Your task to perform on an android device: Clear all items from cart on walmart. Search for "apple airpods" on walmart, select the first entry, add it to the cart, then select checkout. Image 0: 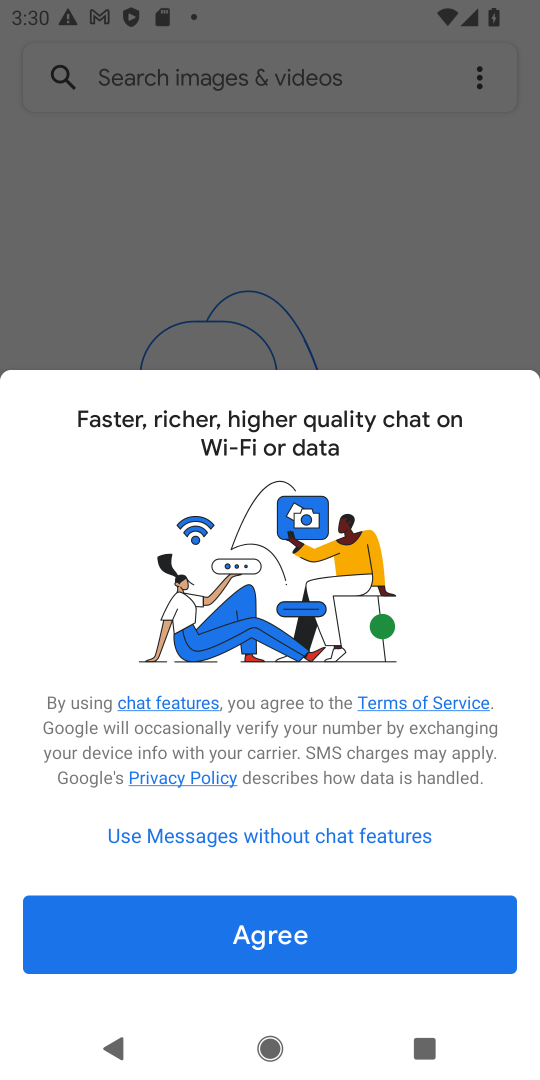
Step 0: press home button
Your task to perform on an android device: Clear all items from cart on walmart. Search for "apple airpods" on walmart, select the first entry, add it to the cart, then select checkout. Image 1: 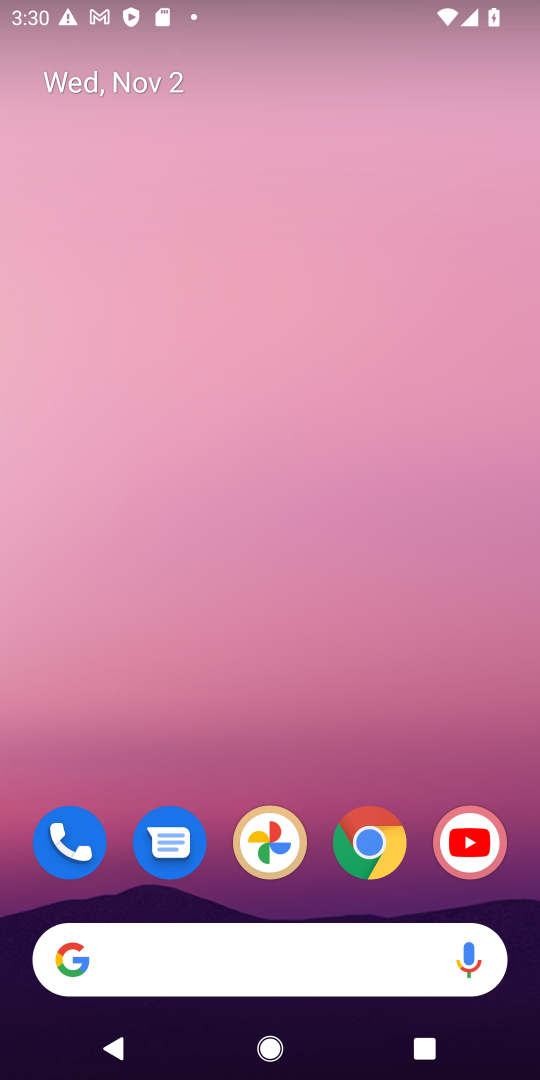
Step 1: click (357, 863)
Your task to perform on an android device: Clear all items from cart on walmart. Search for "apple airpods" on walmart, select the first entry, add it to the cart, then select checkout. Image 2: 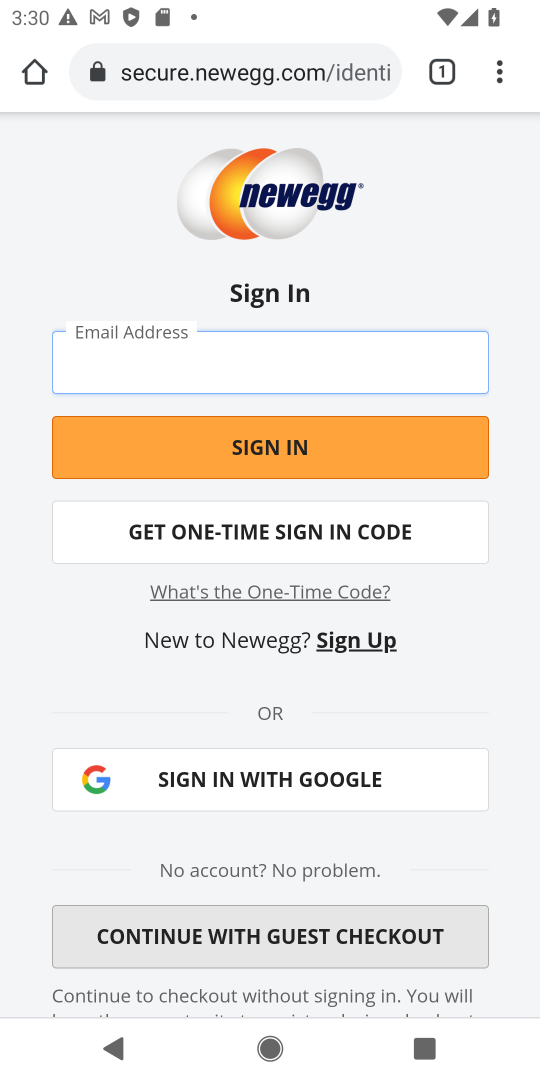
Step 2: click (194, 58)
Your task to perform on an android device: Clear all items from cart on walmart. Search for "apple airpods" on walmart, select the first entry, add it to the cart, then select checkout. Image 3: 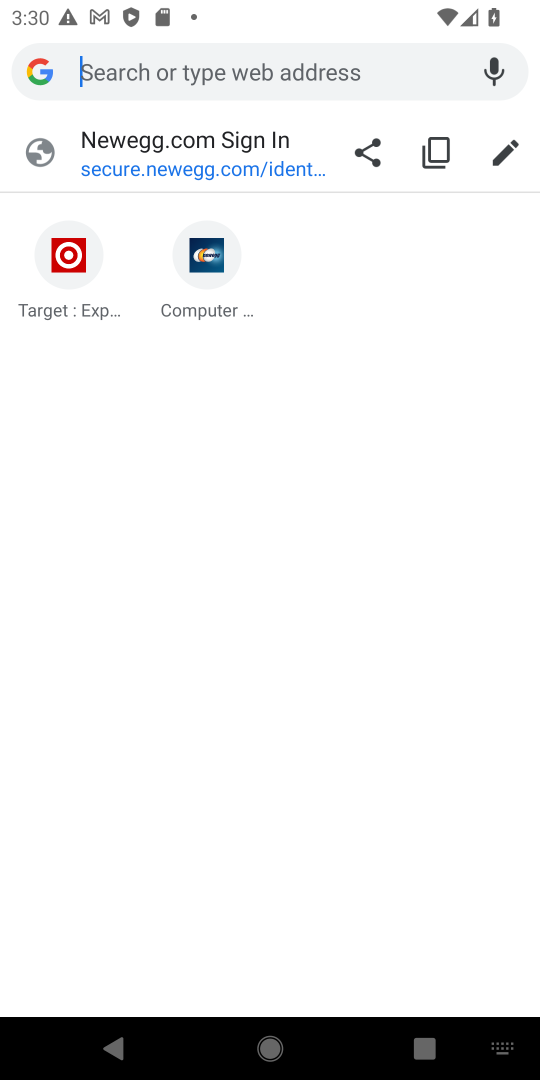
Step 3: type "walmart"
Your task to perform on an android device: Clear all items from cart on walmart. Search for "apple airpods" on walmart, select the first entry, add it to the cart, then select checkout. Image 4: 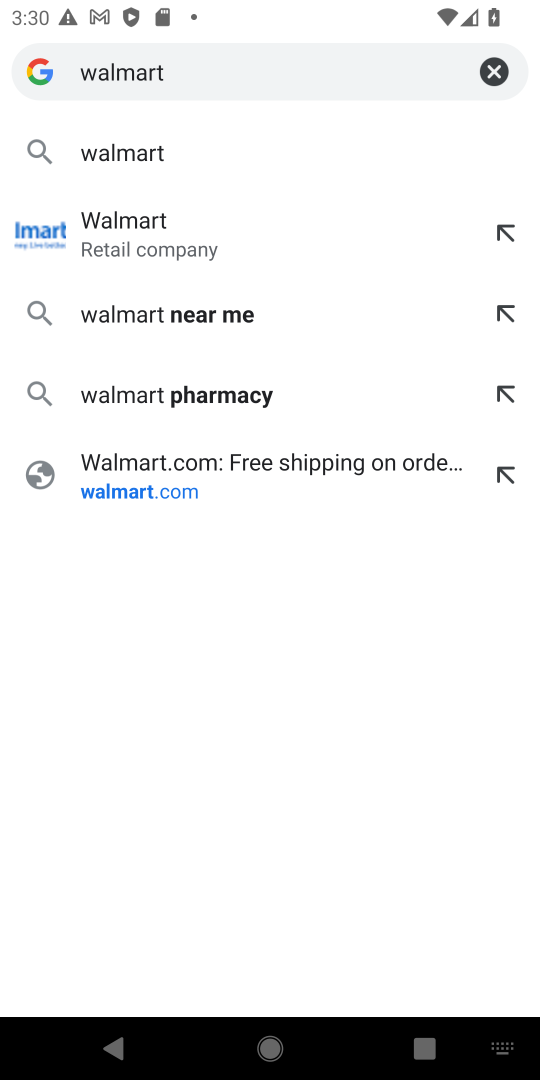
Step 4: click (109, 164)
Your task to perform on an android device: Clear all items from cart on walmart. Search for "apple airpods" on walmart, select the first entry, add it to the cart, then select checkout. Image 5: 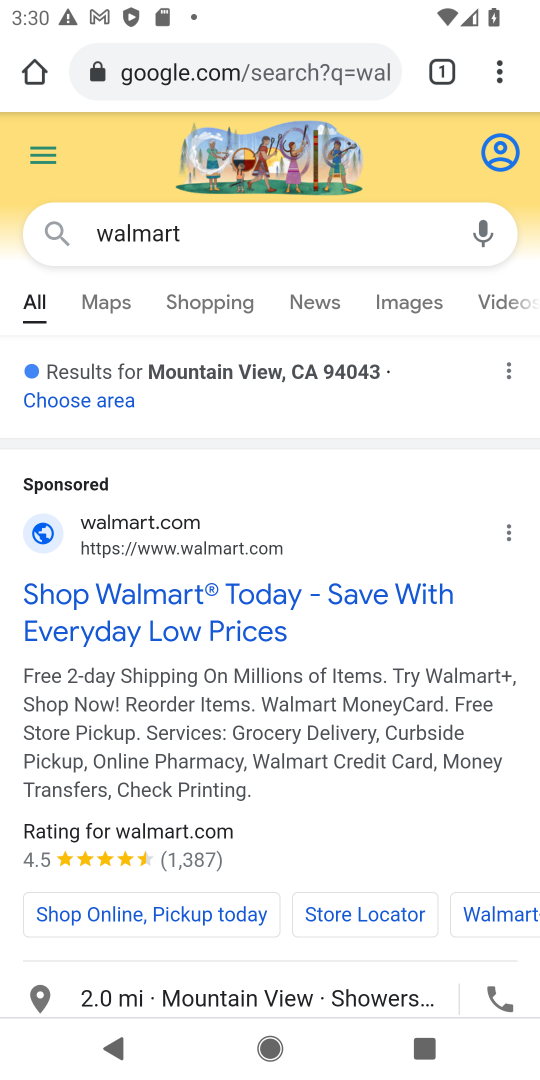
Step 5: drag from (345, 822) to (276, 403)
Your task to perform on an android device: Clear all items from cart on walmart. Search for "apple airpods" on walmart, select the first entry, add it to the cart, then select checkout. Image 6: 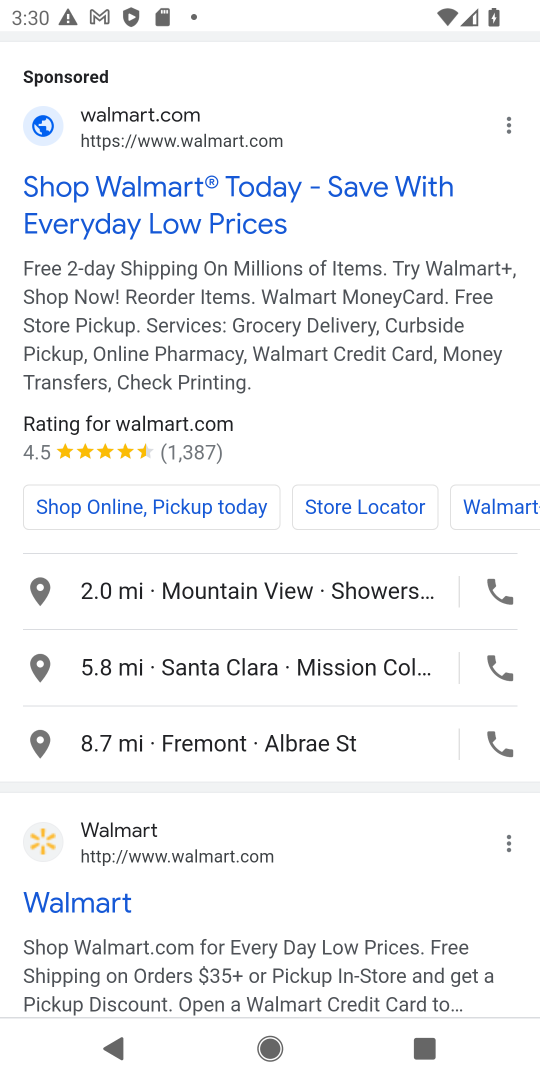
Step 6: click (52, 895)
Your task to perform on an android device: Clear all items from cart on walmart. Search for "apple airpods" on walmart, select the first entry, add it to the cart, then select checkout. Image 7: 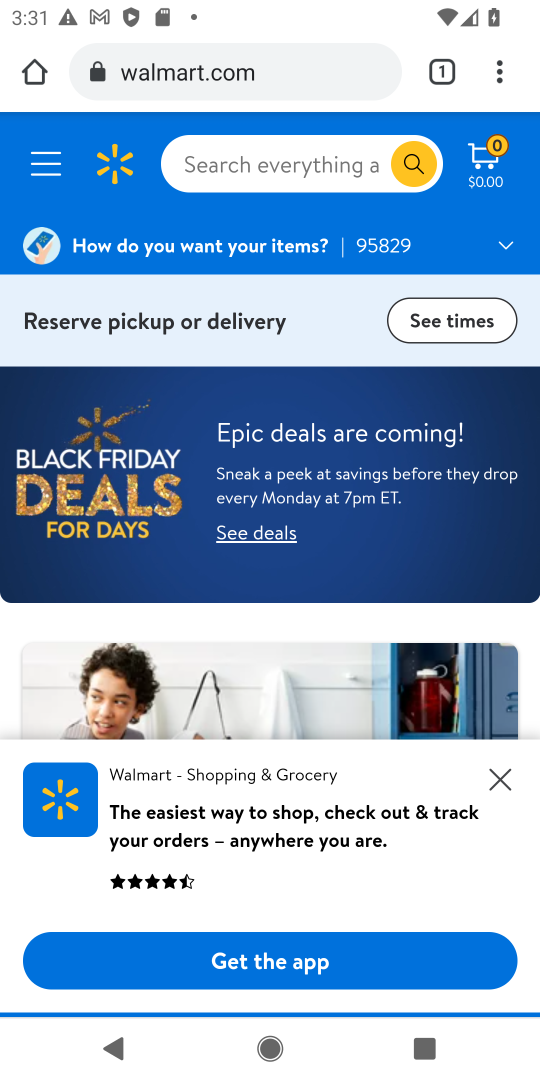
Step 7: click (328, 164)
Your task to perform on an android device: Clear all items from cart on walmart. Search for "apple airpods" on walmart, select the first entry, add it to the cart, then select checkout. Image 8: 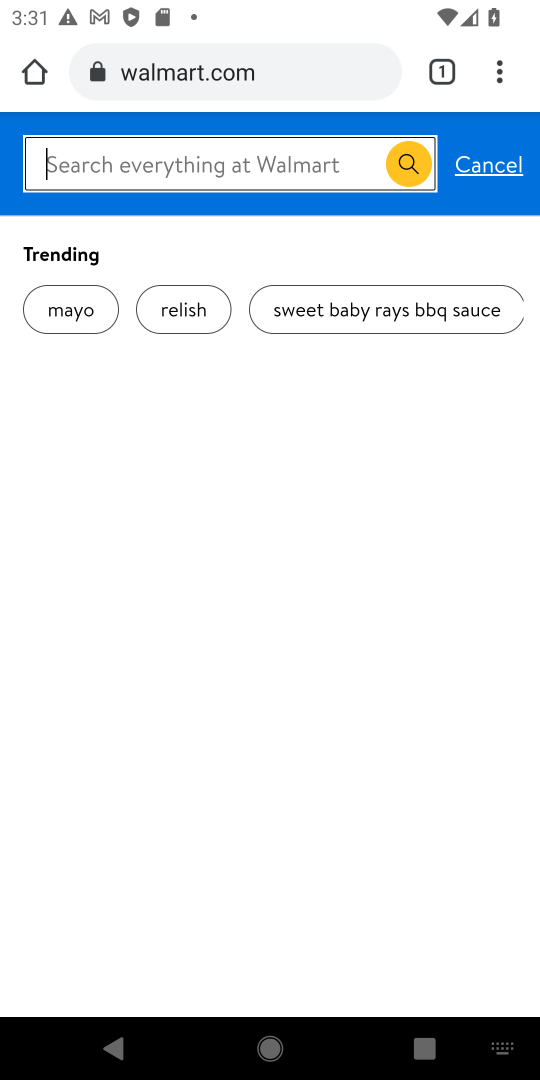
Step 8: type "apple airpods"
Your task to perform on an android device: Clear all items from cart on walmart. Search for "apple airpods" on walmart, select the first entry, add it to the cart, then select checkout. Image 9: 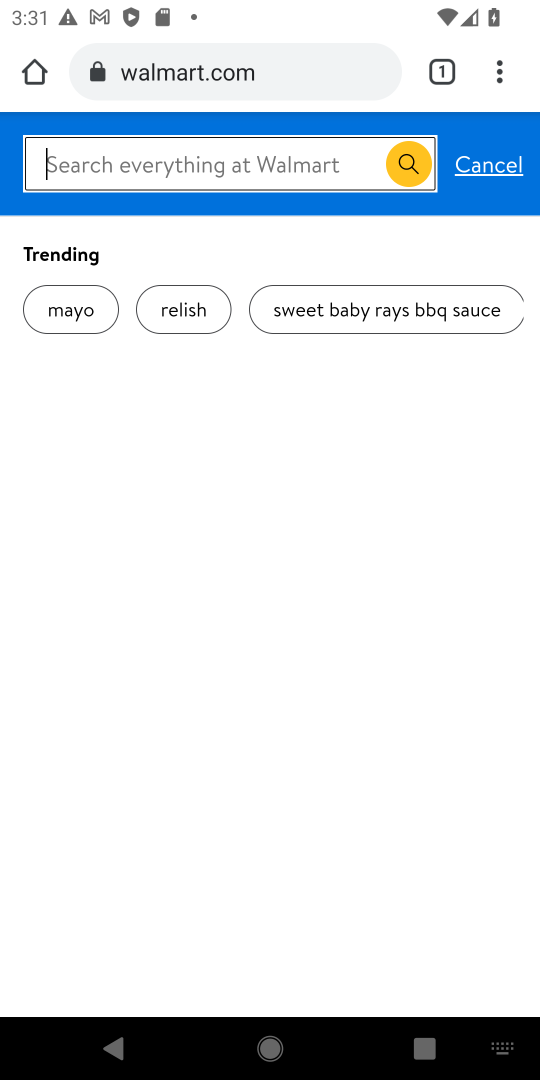
Step 9: click (493, 173)
Your task to perform on an android device: Clear all items from cart on walmart. Search for "apple airpods" on walmart, select the first entry, add it to the cart, then select checkout. Image 10: 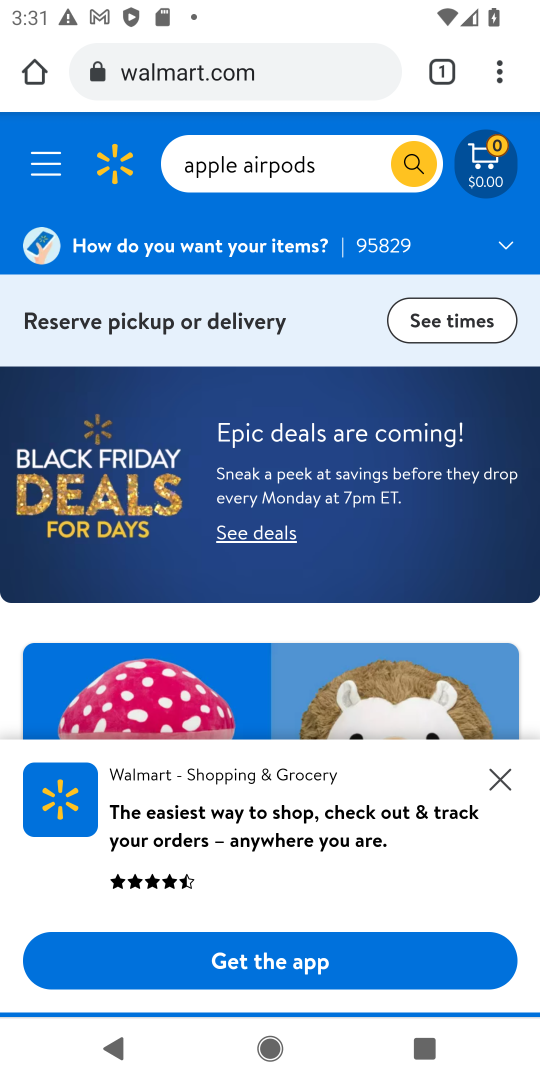
Step 10: click (486, 170)
Your task to perform on an android device: Clear all items from cart on walmart. Search for "apple airpods" on walmart, select the first entry, add it to the cart, then select checkout. Image 11: 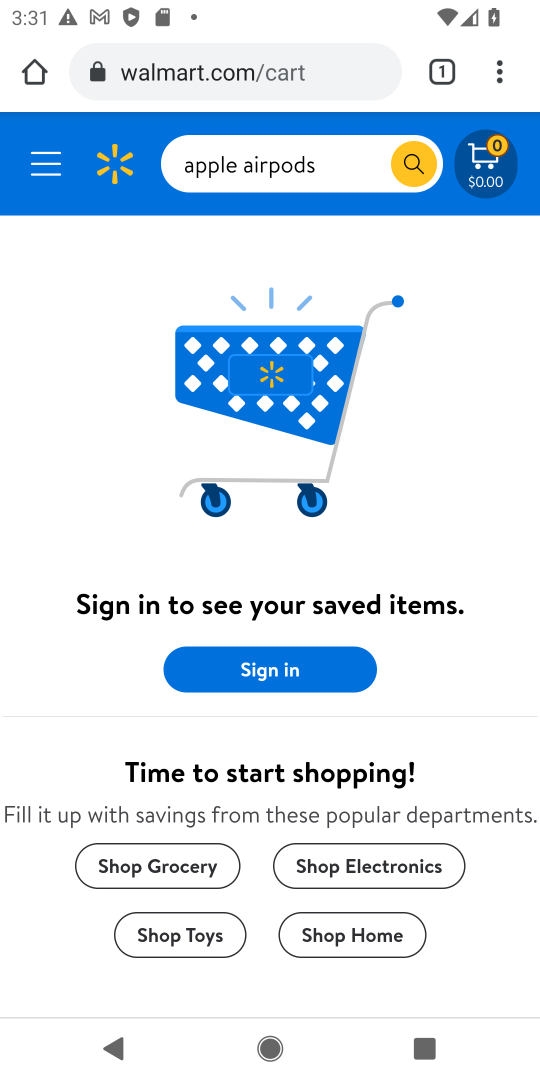
Step 11: click (327, 160)
Your task to perform on an android device: Clear all items from cart on walmart. Search for "apple airpods" on walmart, select the first entry, add it to the cart, then select checkout. Image 12: 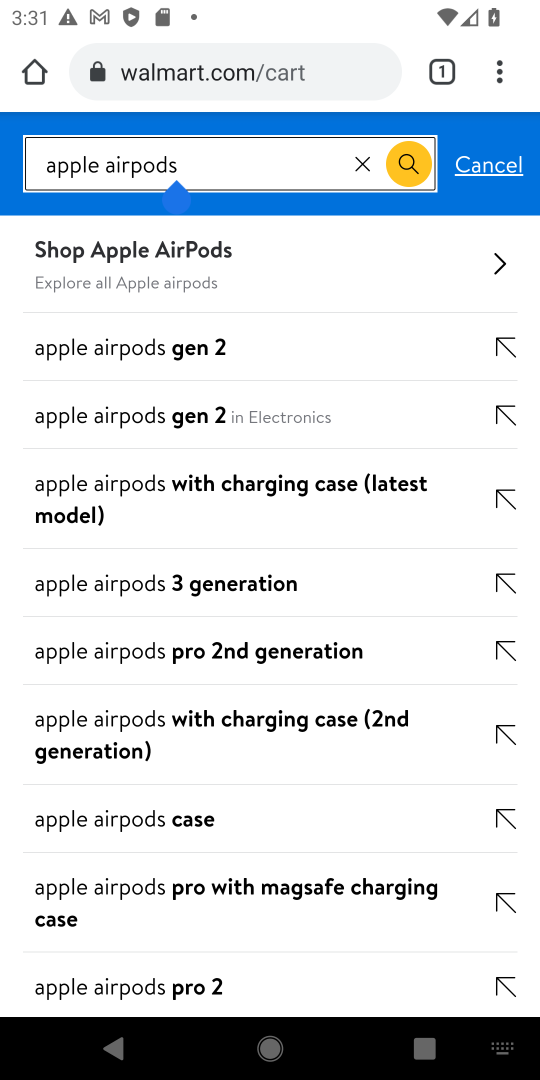
Step 12: click (413, 167)
Your task to perform on an android device: Clear all items from cart on walmart. Search for "apple airpods" on walmart, select the first entry, add it to the cart, then select checkout. Image 13: 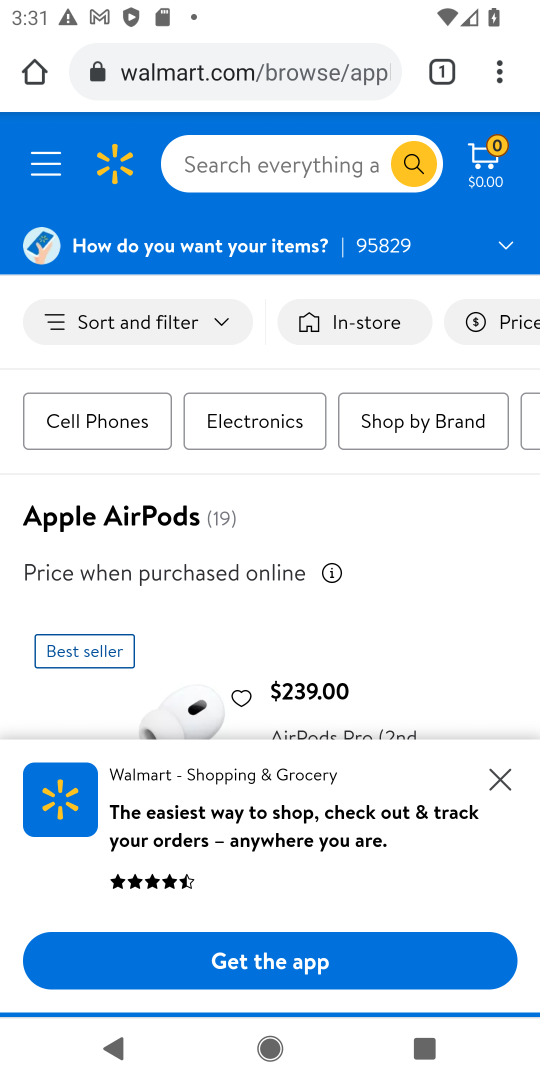
Step 13: click (501, 773)
Your task to perform on an android device: Clear all items from cart on walmart. Search for "apple airpods" on walmart, select the first entry, add it to the cart, then select checkout. Image 14: 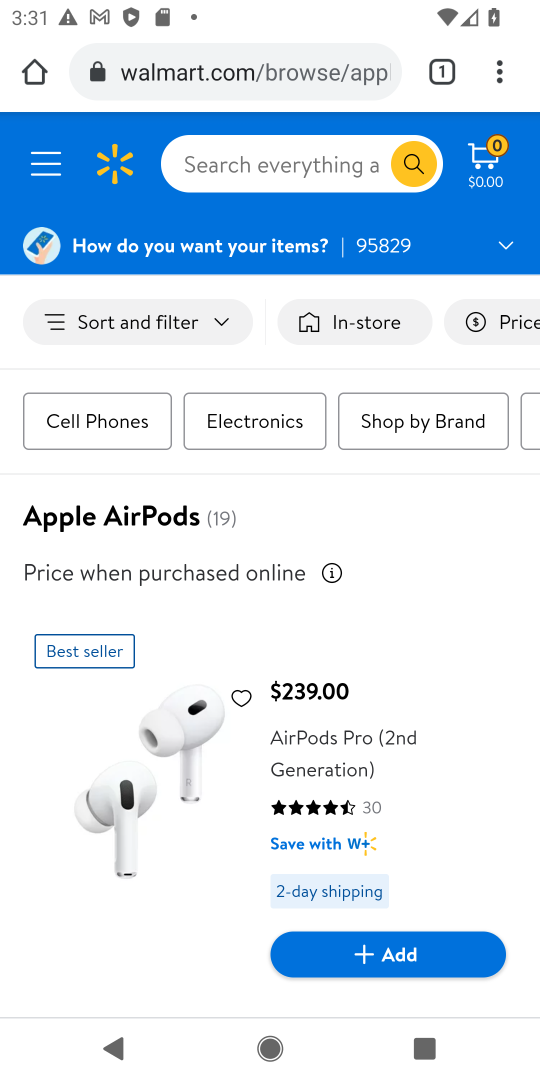
Step 14: click (214, 730)
Your task to perform on an android device: Clear all items from cart on walmart. Search for "apple airpods" on walmart, select the first entry, add it to the cart, then select checkout. Image 15: 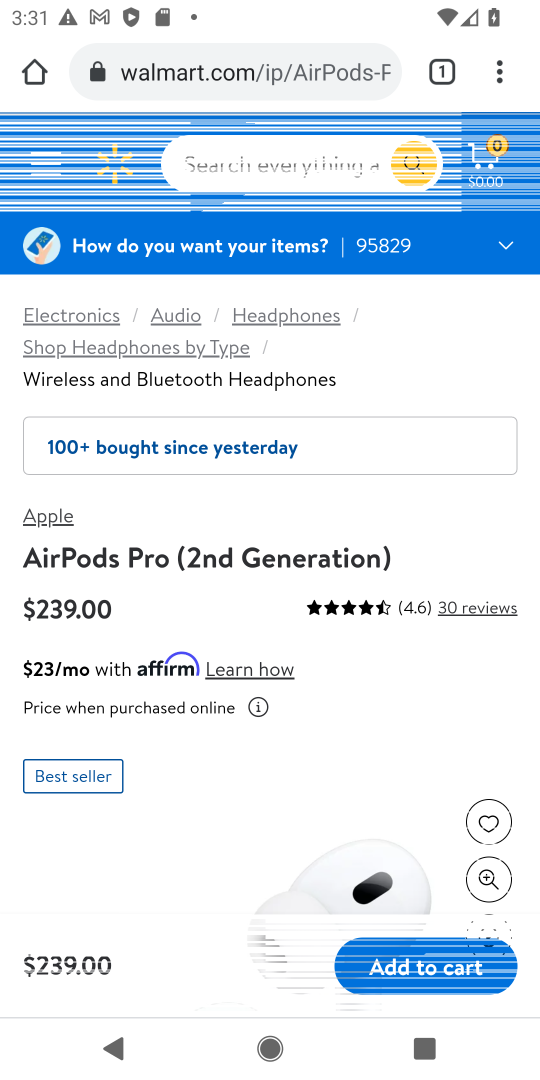
Step 15: click (430, 960)
Your task to perform on an android device: Clear all items from cart on walmart. Search for "apple airpods" on walmart, select the first entry, add it to the cart, then select checkout. Image 16: 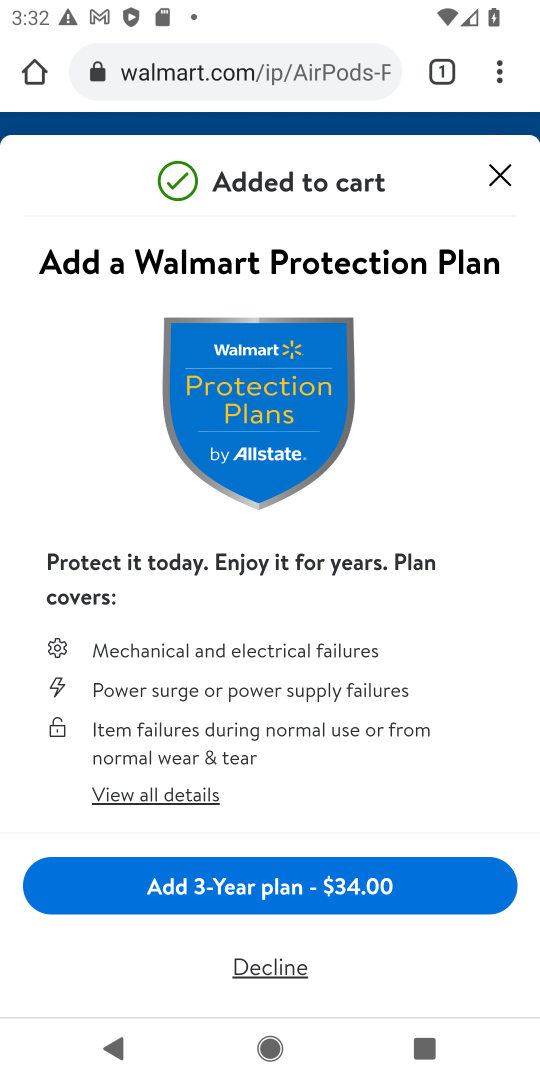
Step 16: click (273, 967)
Your task to perform on an android device: Clear all items from cart on walmart. Search for "apple airpods" on walmart, select the first entry, add it to the cart, then select checkout. Image 17: 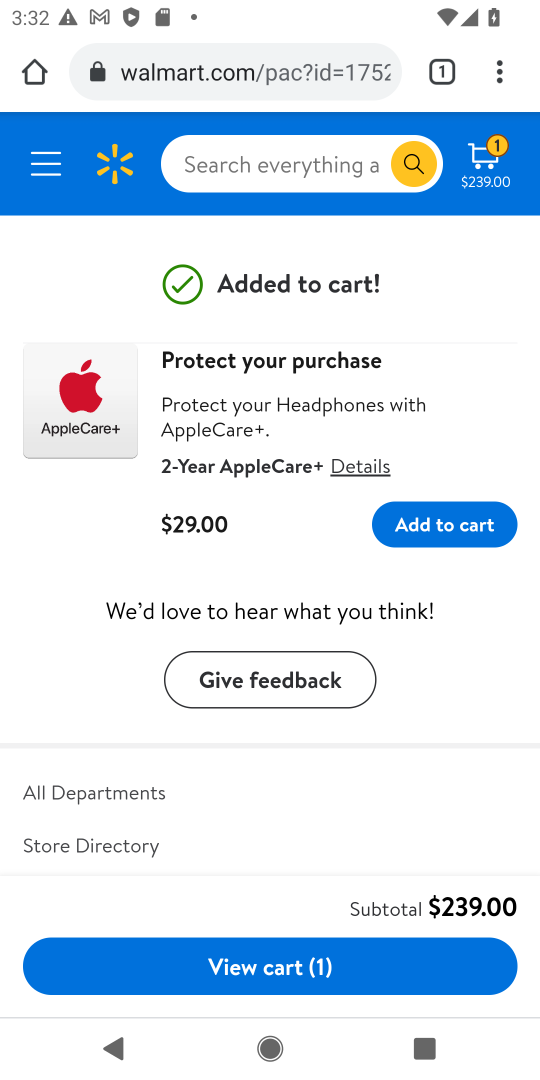
Step 17: click (259, 968)
Your task to perform on an android device: Clear all items from cart on walmart. Search for "apple airpods" on walmart, select the first entry, add it to the cart, then select checkout. Image 18: 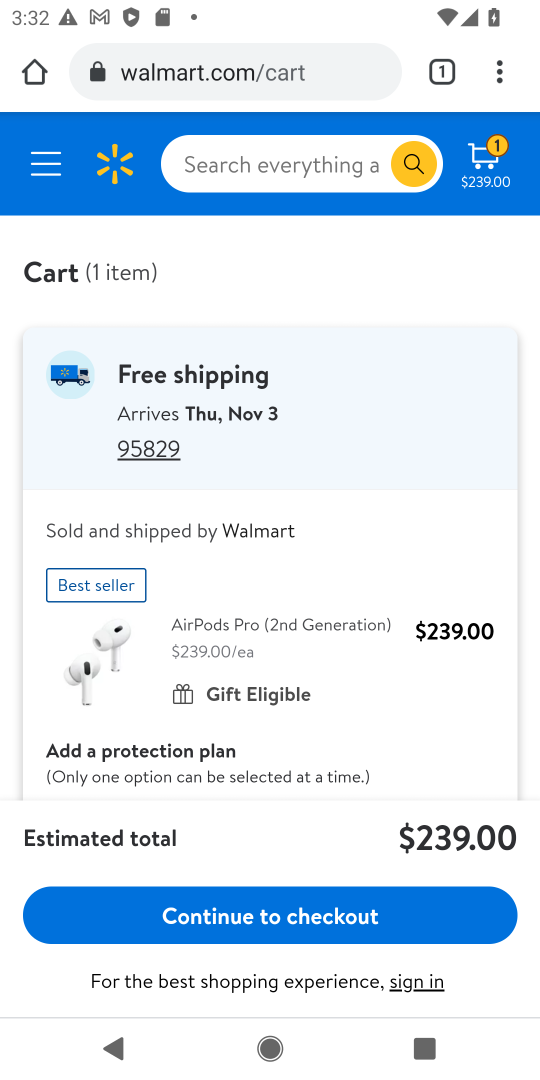
Step 18: click (262, 923)
Your task to perform on an android device: Clear all items from cart on walmart. Search for "apple airpods" on walmart, select the first entry, add it to the cart, then select checkout. Image 19: 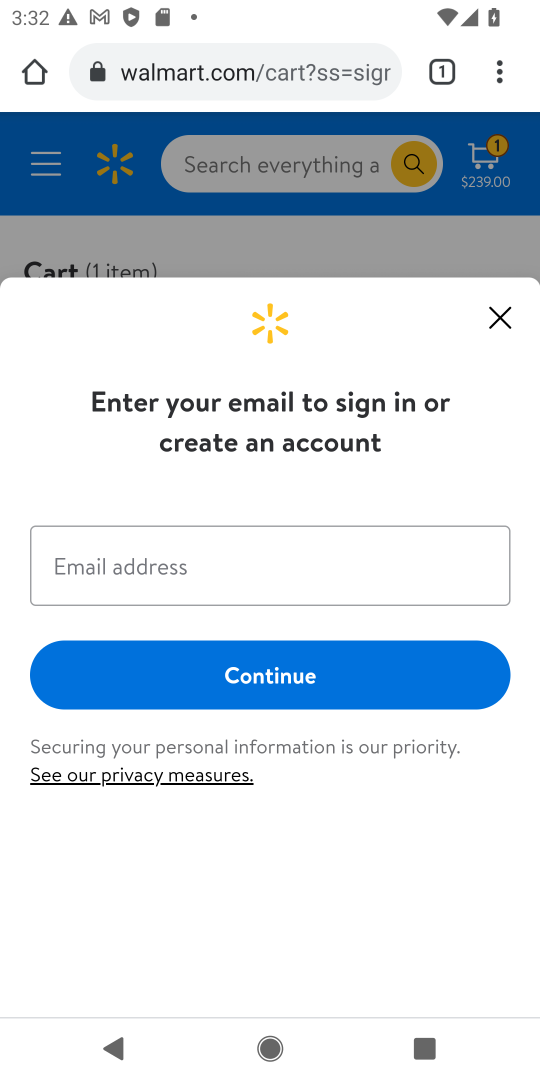
Step 19: task complete